Your task to perform on an android device: toggle sleep mode Image 0: 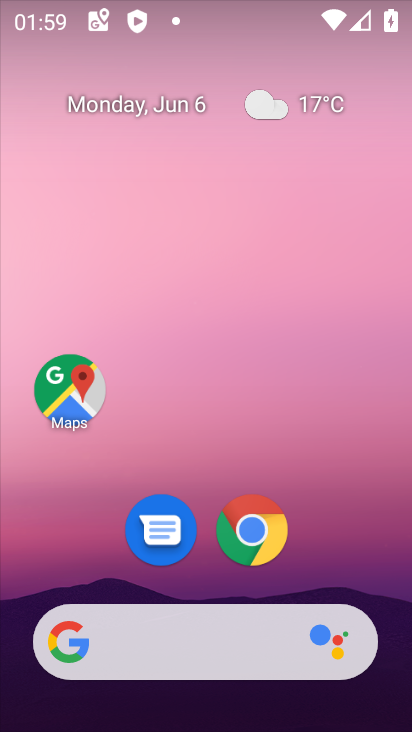
Step 0: drag from (203, 571) to (225, 224)
Your task to perform on an android device: toggle sleep mode Image 1: 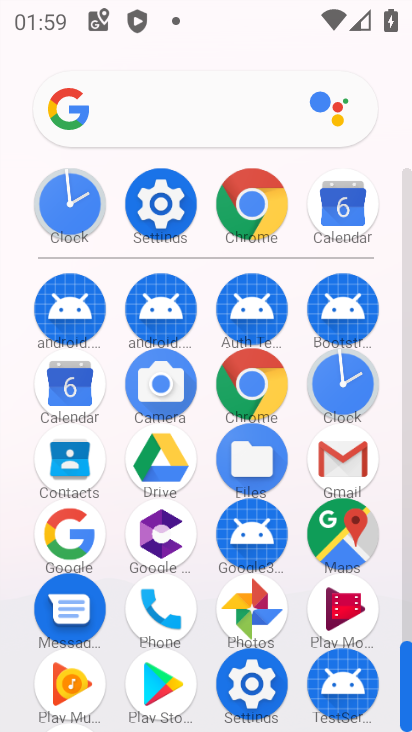
Step 1: click (160, 175)
Your task to perform on an android device: toggle sleep mode Image 2: 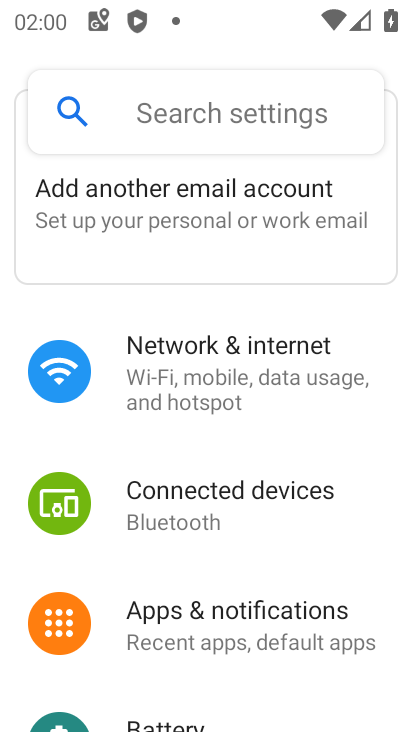
Step 2: task complete